Your task to perform on an android device: Open Chrome and go to settings Image 0: 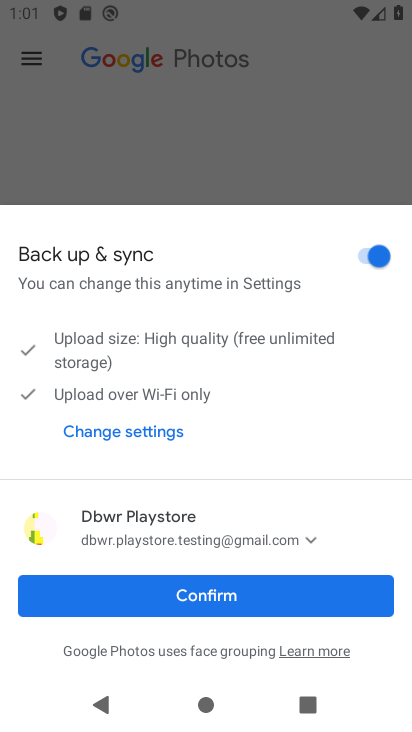
Step 0: press back button
Your task to perform on an android device: Open Chrome and go to settings Image 1: 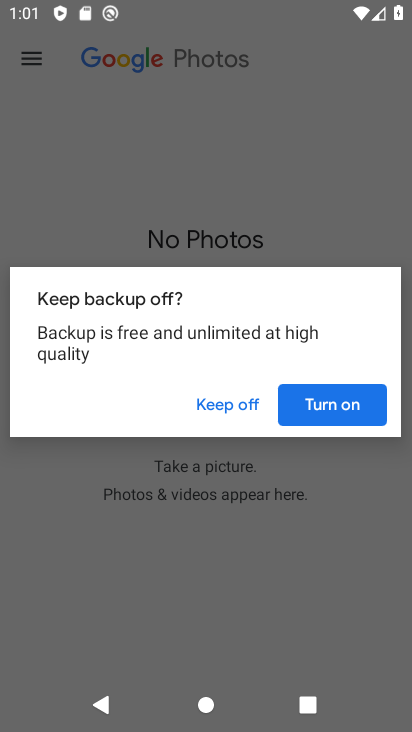
Step 1: press home button
Your task to perform on an android device: Open Chrome and go to settings Image 2: 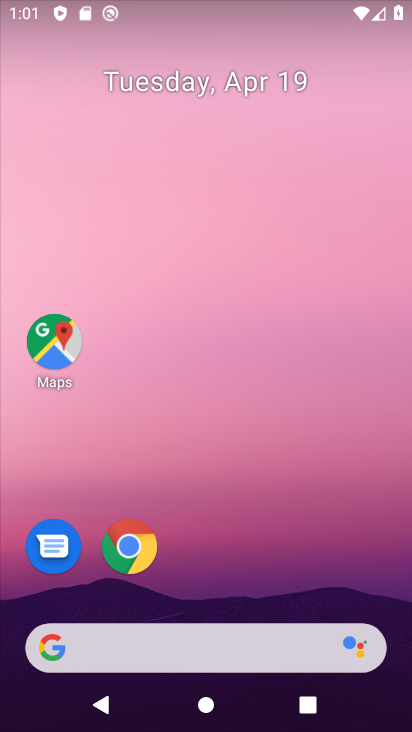
Step 2: click (129, 534)
Your task to perform on an android device: Open Chrome and go to settings Image 3: 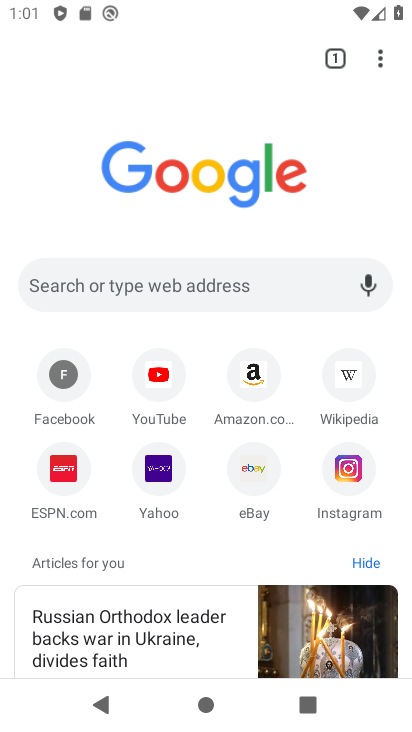
Step 3: click (382, 63)
Your task to perform on an android device: Open Chrome and go to settings Image 4: 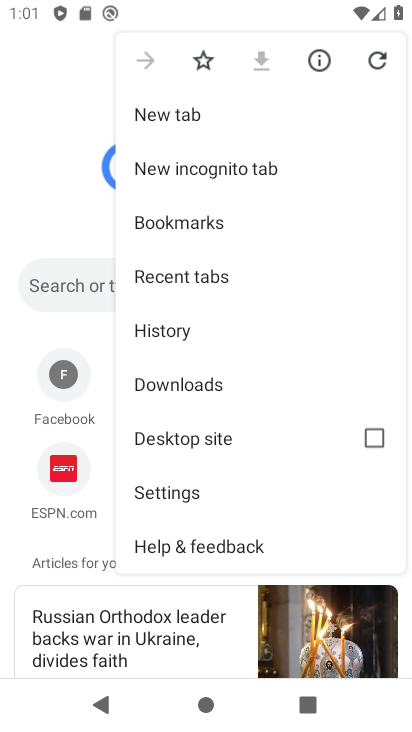
Step 4: click (191, 498)
Your task to perform on an android device: Open Chrome and go to settings Image 5: 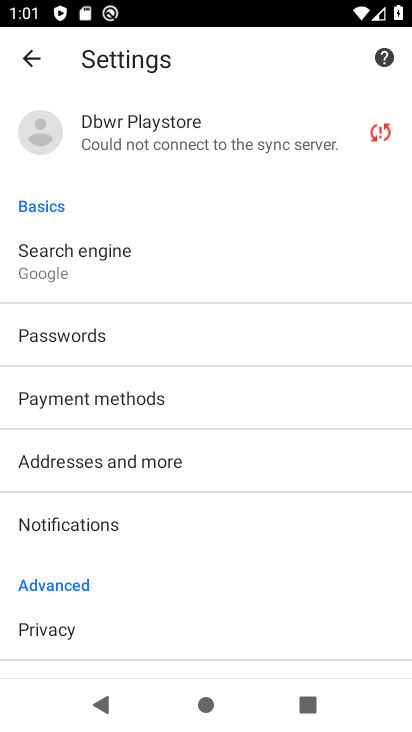
Step 5: task complete